Your task to perform on an android device: star an email in the gmail app Image 0: 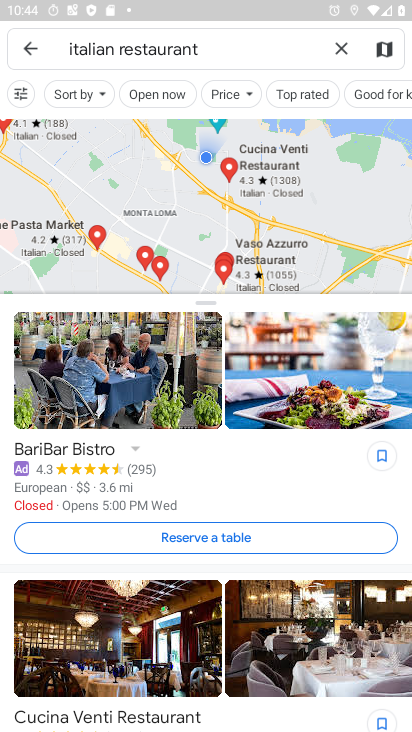
Step 0: press home button
Your task to perform on an android device: star an email in the gmail app Image 1: 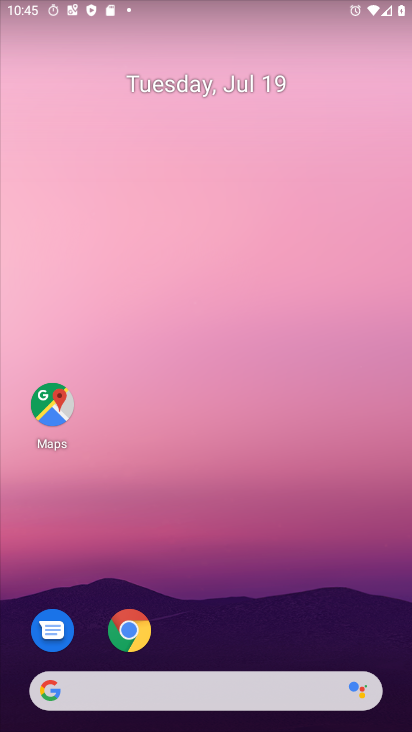
Step 1: click (192, 98)
Your task to perform on an android device: star an email in the gmail app Image 2: 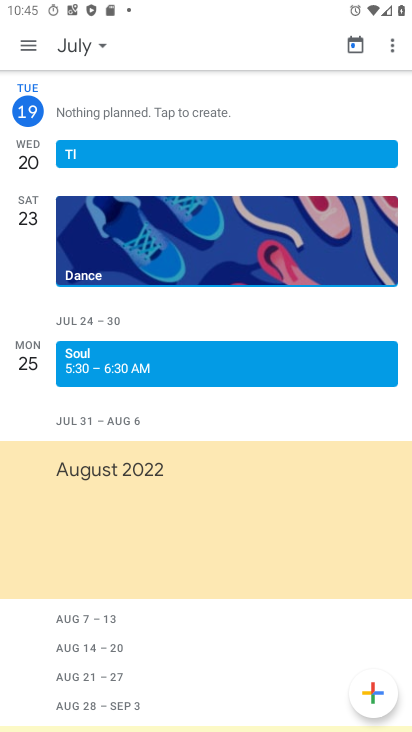
Step 2: press home button
Your task to perform on an android device: star an email in the gmail app Image 3: 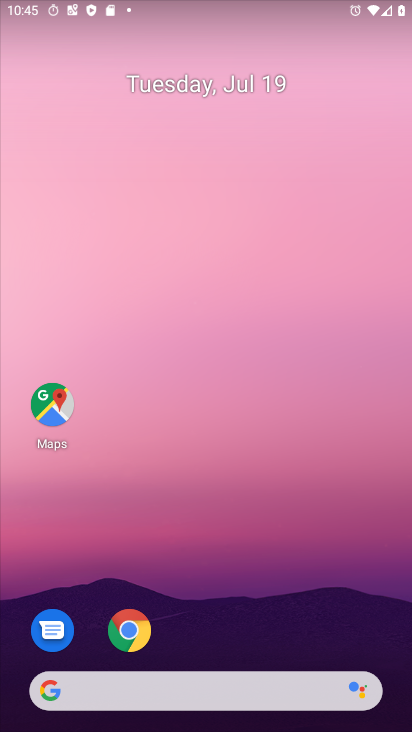
Step 3: drag from (254, 624) to (251, 120)
Your task to perform on an android device: star an email in the gmail app Image 4: 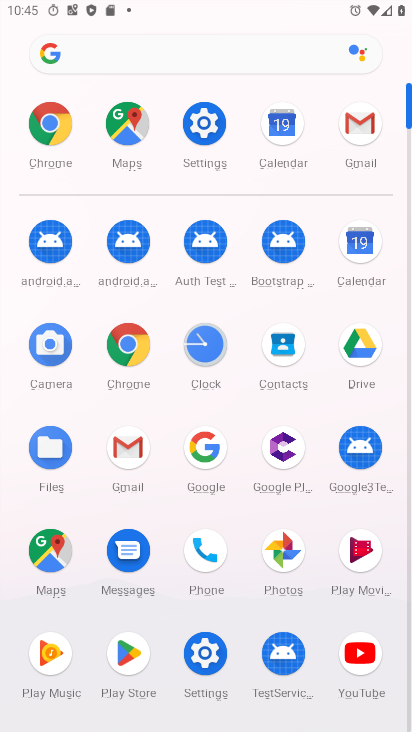
Step 4: click (356, 129)
Your task to perform on an android device: star an email in the gmail app Image 5: 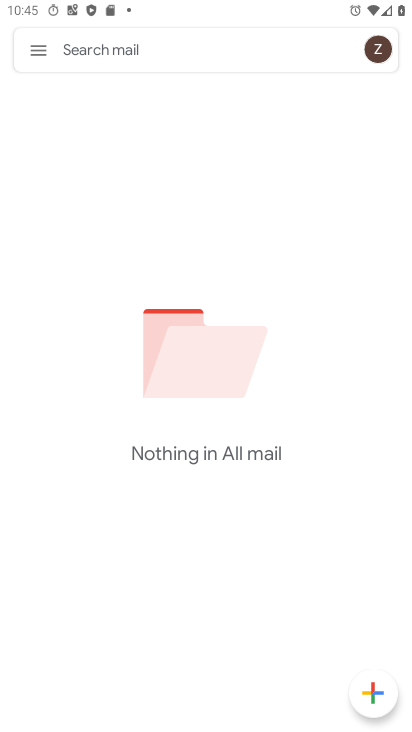
Step 5: click (38, 52)
Your task to perform on an android device: star an email in the gmail app Image 6: 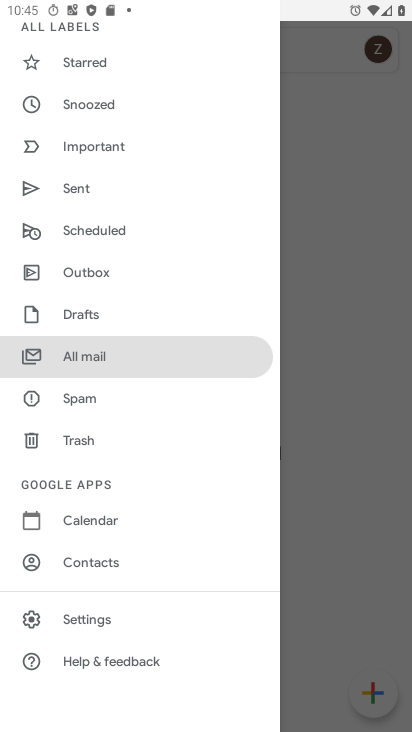
Step 6: click (97, 62)
Your task to perform on an android device: star an email in the gmail app Image 7: 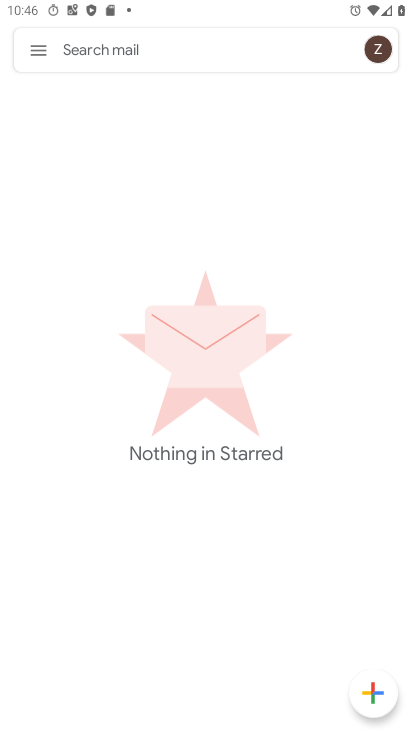
Step 7: task complete